Your task to perform on an android device: What is the recent news? Image 0: 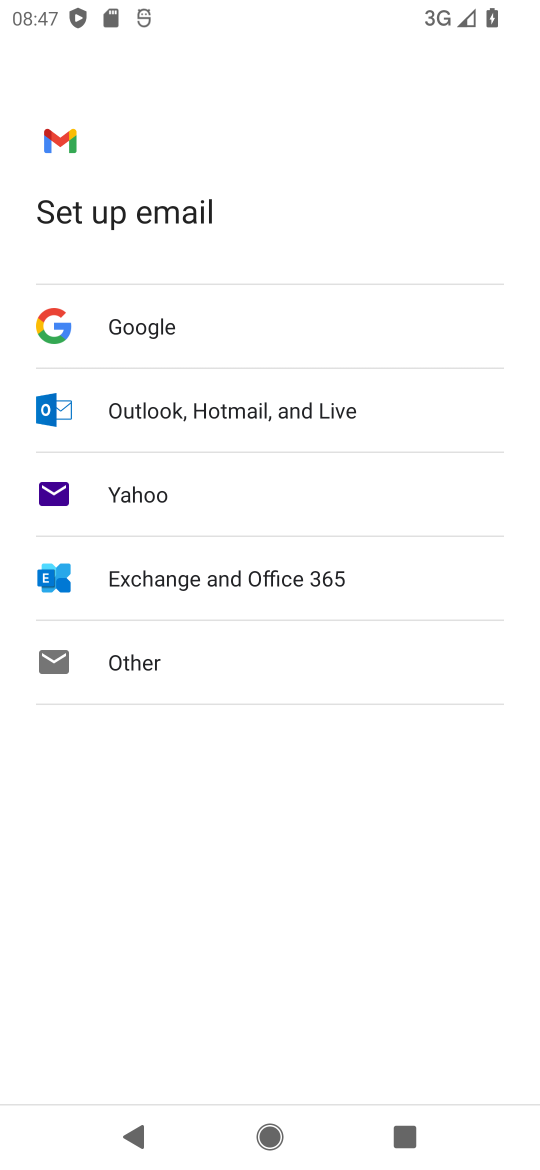
Step 0: press home button
Your task to perform on an android device: What is the recent news? Image 1: 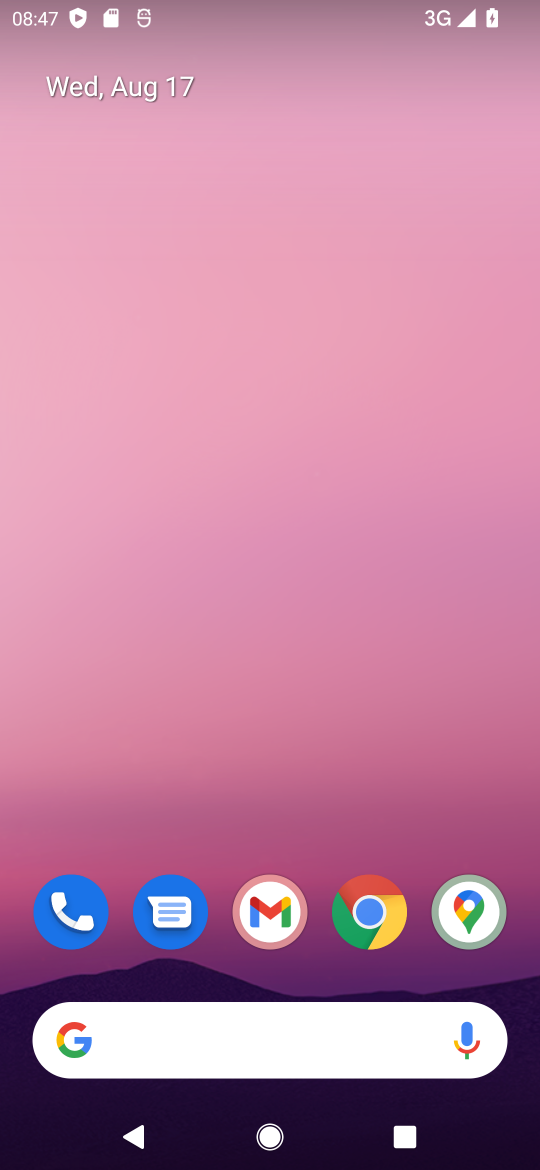
Step 1: drag from (293, 1011) to (305, 174)
Your task to perform on an android device: What is the recent news? Image 2: 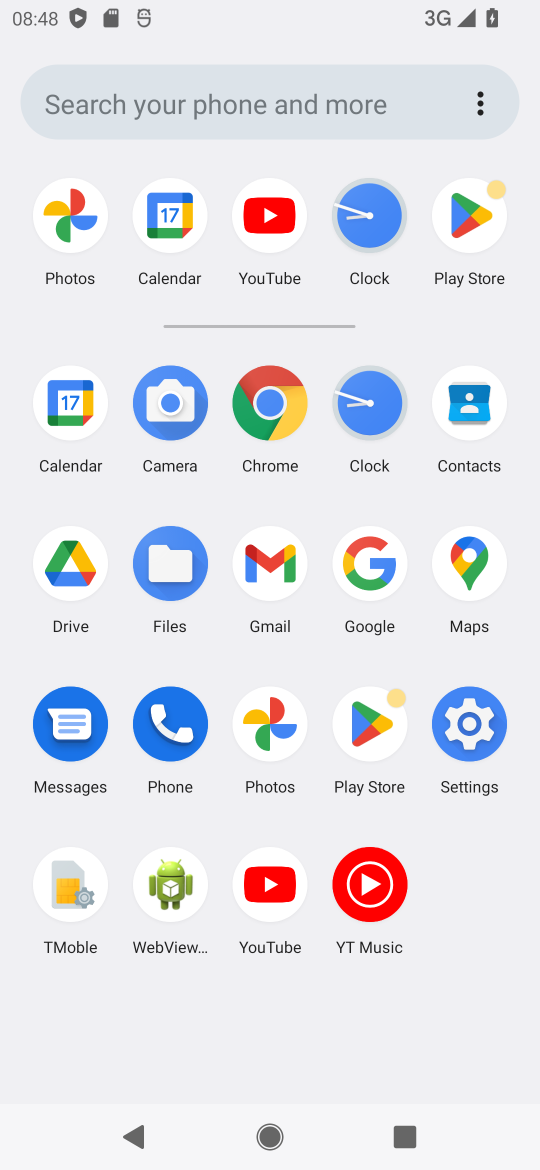
Step 2: click (360, 570)
Your task to perform on an android device: What is the recent news? Image 3: 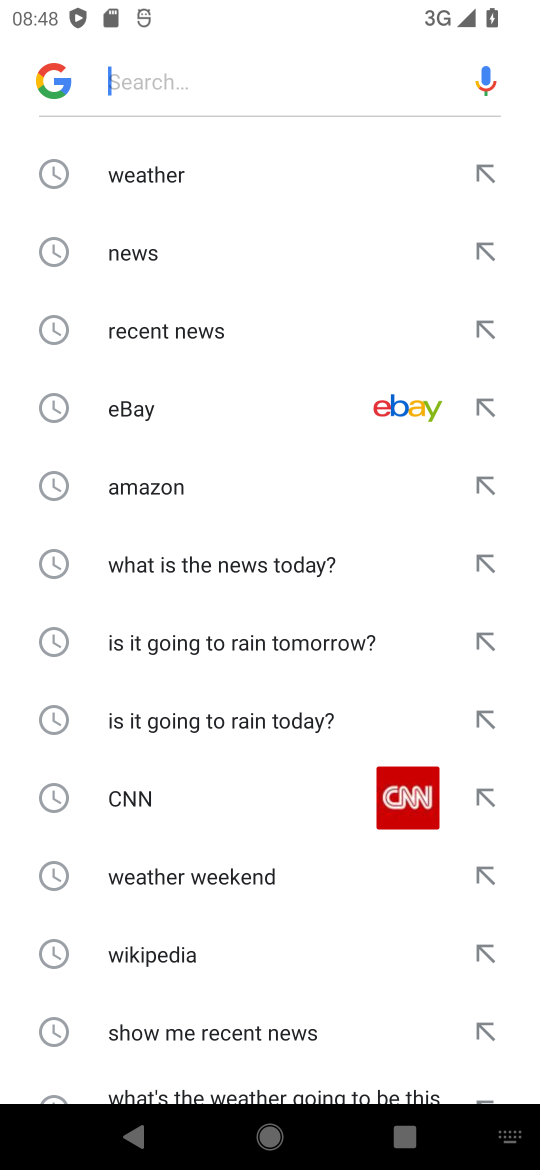
Step 3: click (227, 344)
Your task to perform on an android device: What is the recent news? Image 4: 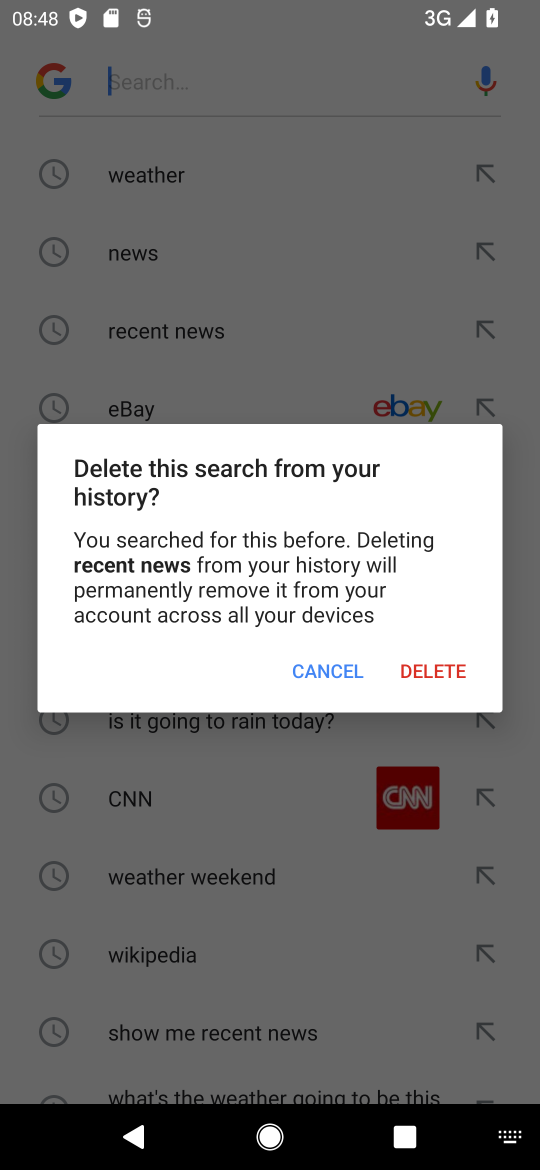
Step 4: click (309, 649)
Your task to perform on an android device: What is the recent news? Image 5: 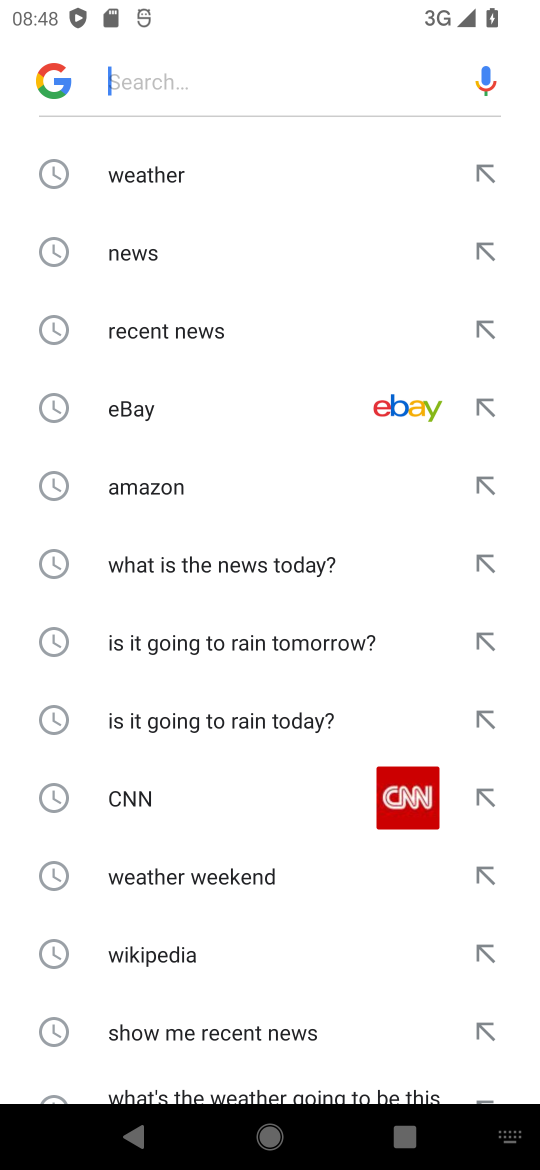
Step 5: click (187, 337)
Your task to perform on an android device: What is the recent news? Image 6: 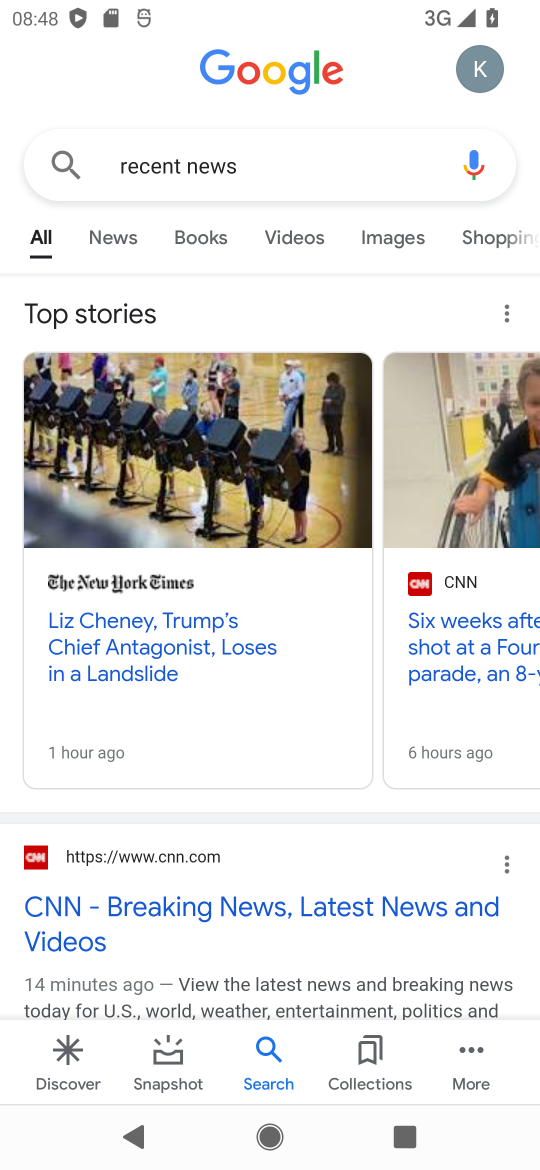
Step 6: task complete